Your task to perform on an android device: Open calendar and show me the third week of next month Image 0: 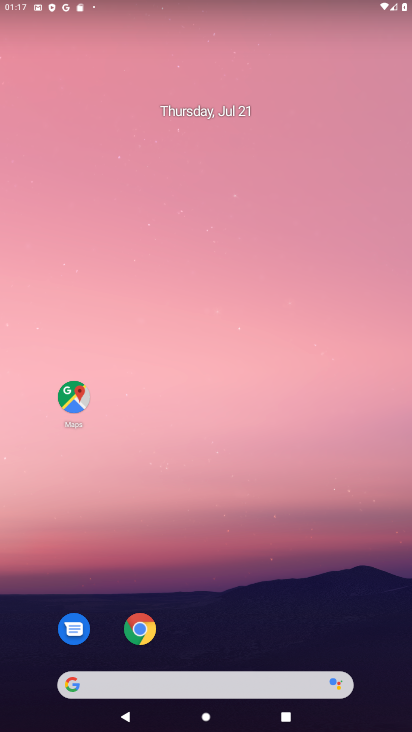
Step 0: drag from (200, 634) to (219, 86)
Your task to perform on an android device: Open calendar and show me the third week of next month Image 1: 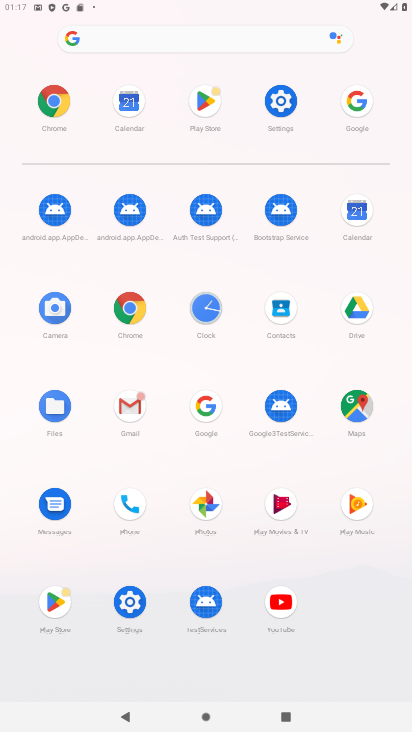
Step 1: click (357, 210)
Your task to perform on an android device: Open calendar and show me the third week of next month Image 2: 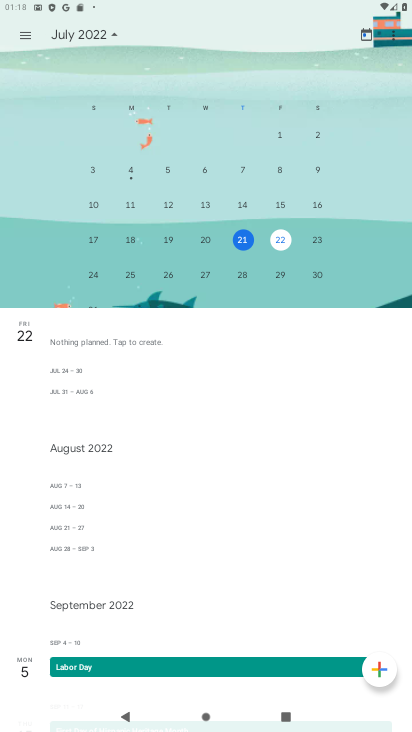
Step 2: drag from (378, 259) to (0, 220)
Your task to perform on an android device: Open calendar and show me the third week of next month Image 3: 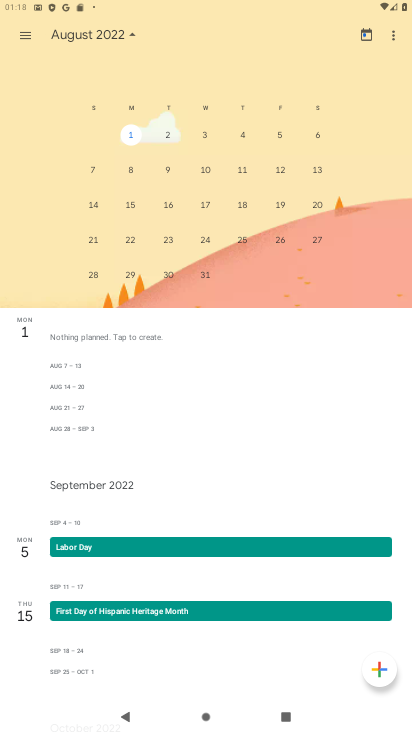
Step 3: click (207, 201)
Your task to perform on an android device: Open calendar and show me the third week of next month Image 4: 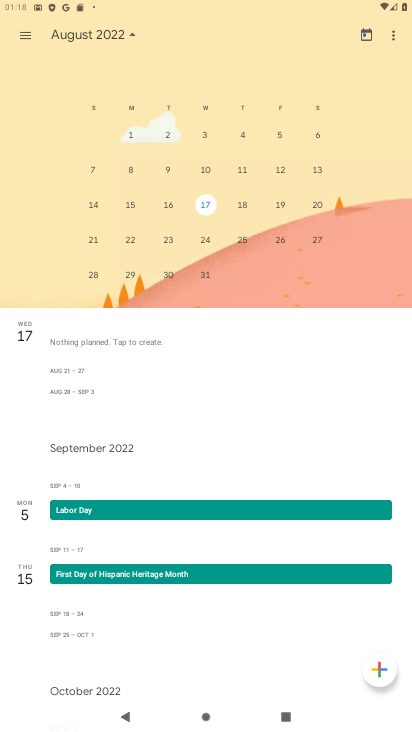
Step 4: task complete